Your task to perform on an android device: Open sound settings Image 0: 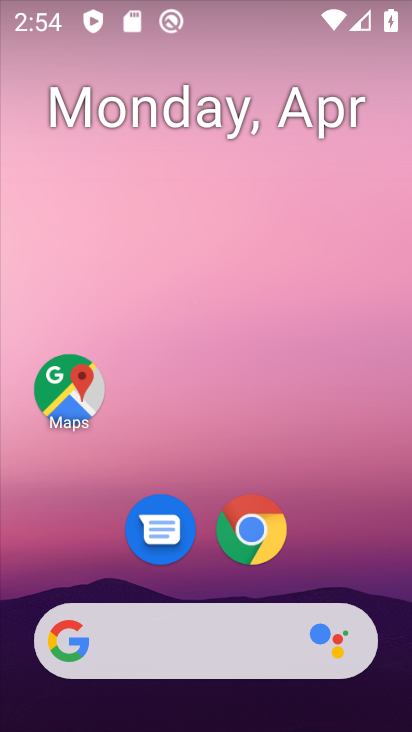
Step 0: drag from (245, 649) to (232, 161)
Your task to perform on an android device: Open sound settings Image 1: 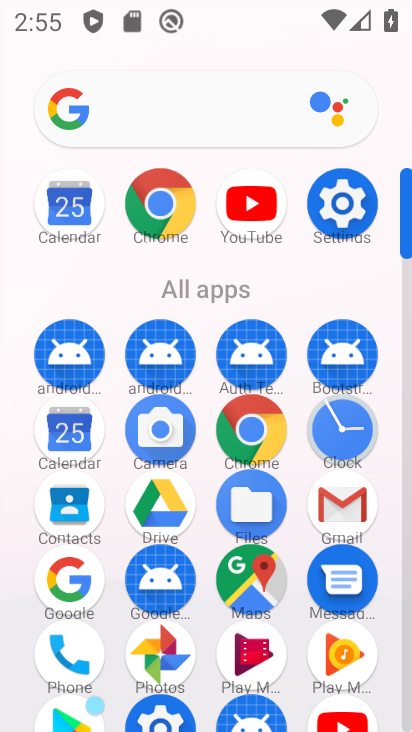
Step 1: click (355, 202)
Your task to perform on an android device: Open sound settings Image 2: 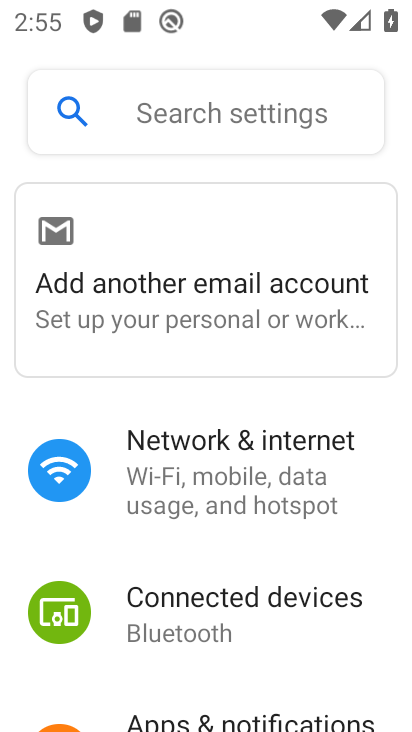
Step 2: click (235, 104)
Your task to perform on an android device: Open sound settings Image 3: 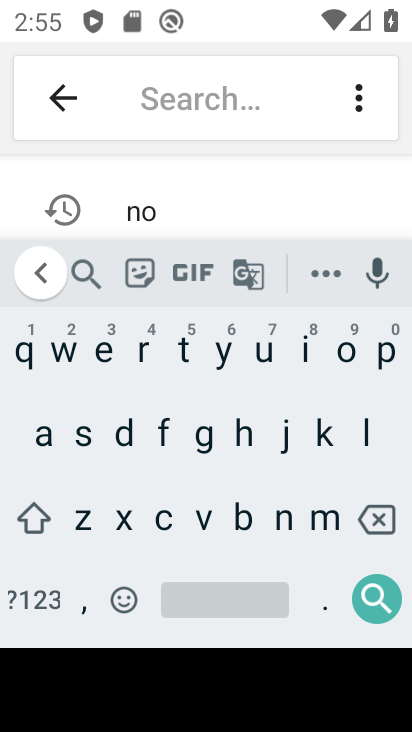
Step 3: click (83, 439)
Your task to perform on an android device: Open sound settings Image 4: 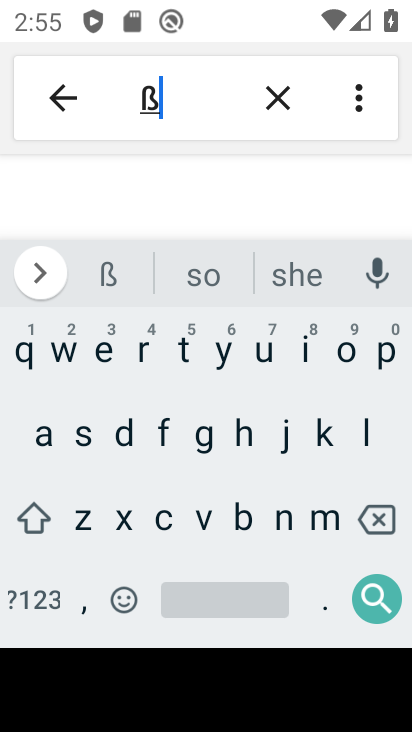
Step 4: click (375, 522)
Your task to perform on an android device: Open sound settings Image 5: 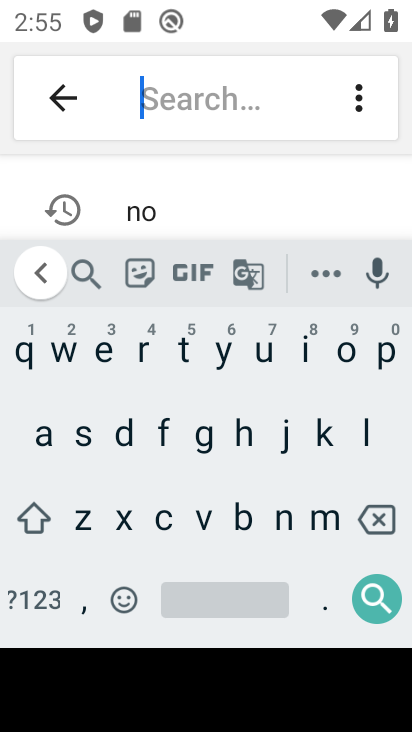
Step 5: click (77, 439)
Your task to perform on an android device: Open sound settings Image 6: 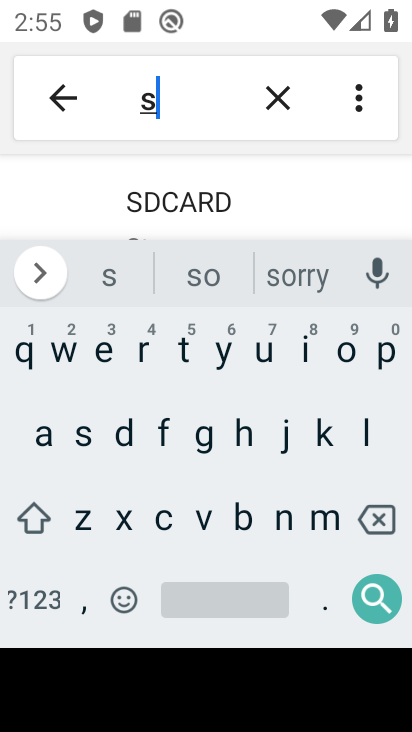
Step 6: click (339, 365)
Your task to perform on an android device: Open sound settings Image 7: 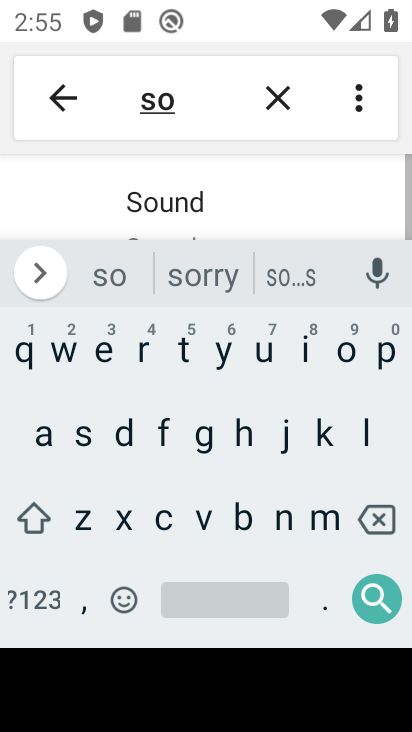
Step 7: click (247, 203)
Your task to perform on an android device: Open sound settings Image 8: 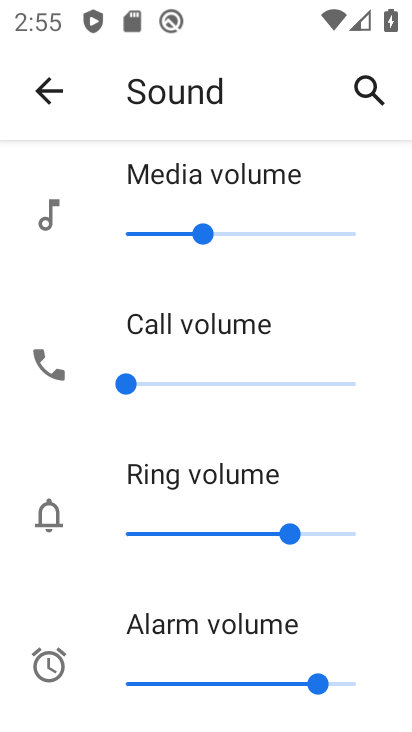
Step 8: task complete